Your task to perform on an android device: turn on bluetooth scan Image 0: 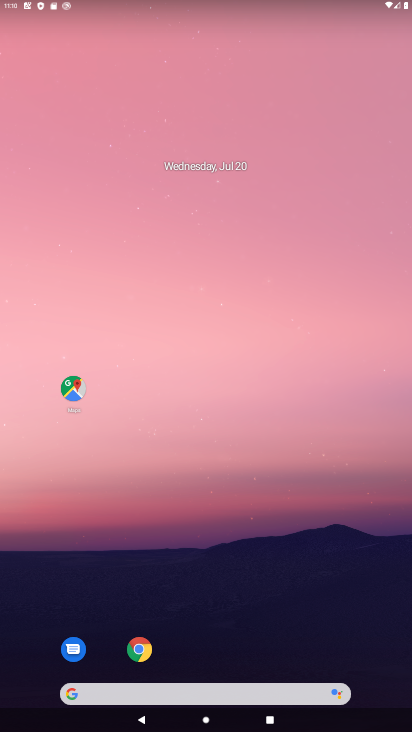
Step 0: drag from (349, 630) to (275, 170)
Your task to perform on an android device: turn on bluetooth scan Image 1: 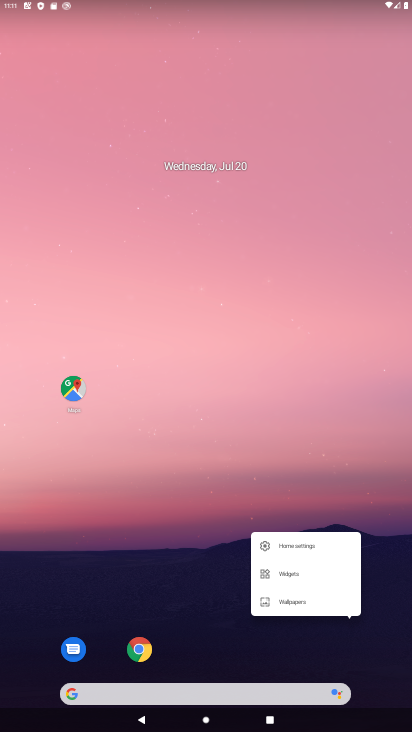
Step 1: click (212, 411)
Your task to perform on an android device: turn on bluetooth scan Image 2: 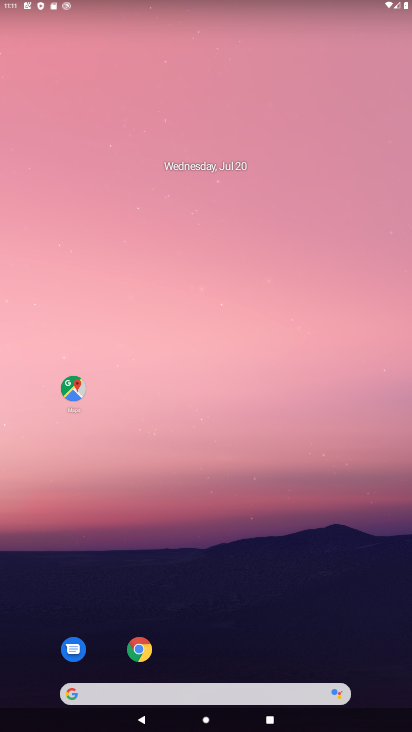
Step 2: drag from (218, 643) to (199, 214)
Your task to perform on an android device: turn on bluetooth scan Image 3: 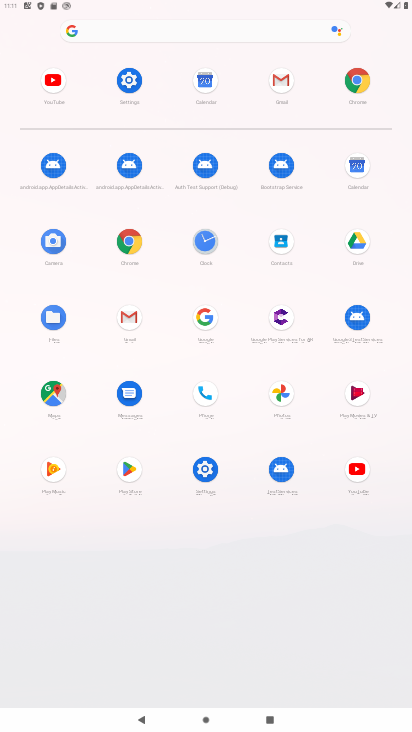
Step 3: click (137, 77)
Your task to perform on an android device: turn on bluetooth scan Image 4: 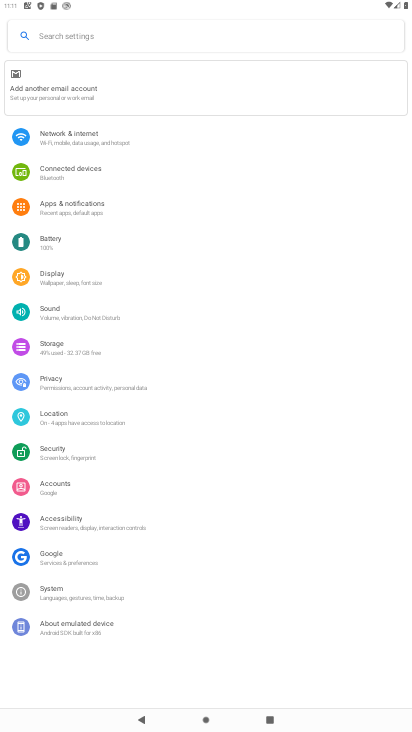
Step 4: click (96, 413)
Your task to perform on an android device: turn on bluetooth scan Image 5: 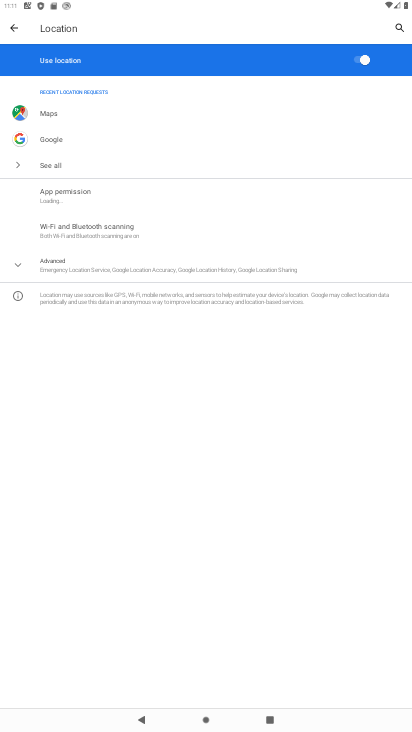
Step 5: click (170, 235)
Your task to perform on an android device: turn on bluetooth scan Image 6: 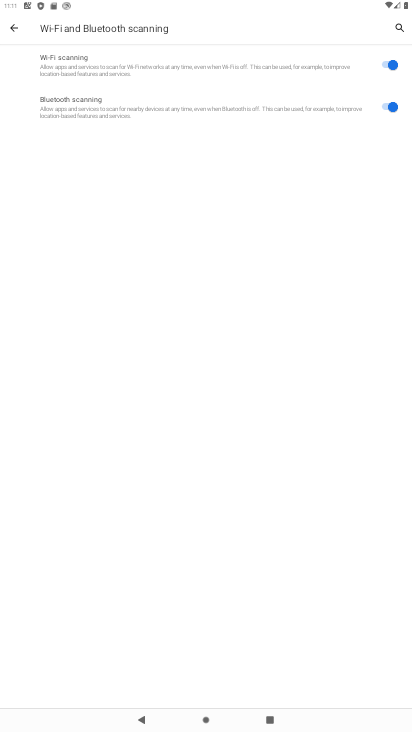
Step 6: task complete